Your task to perform on an android device: uninstall "File Manager" Image 0: 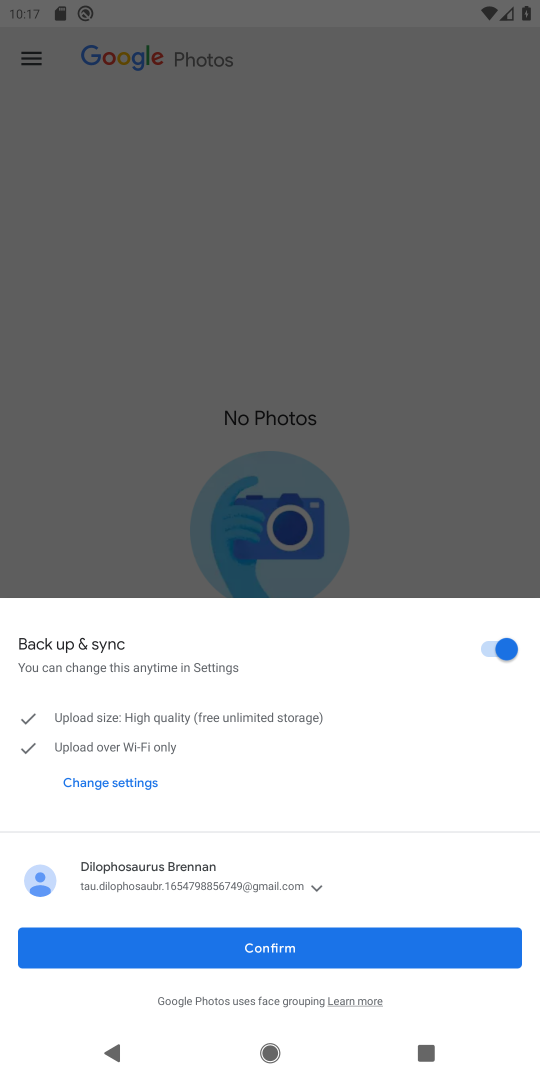
Step 0: press home button
Your task to perform on an android device: uninstall "File Manager" Image 1: 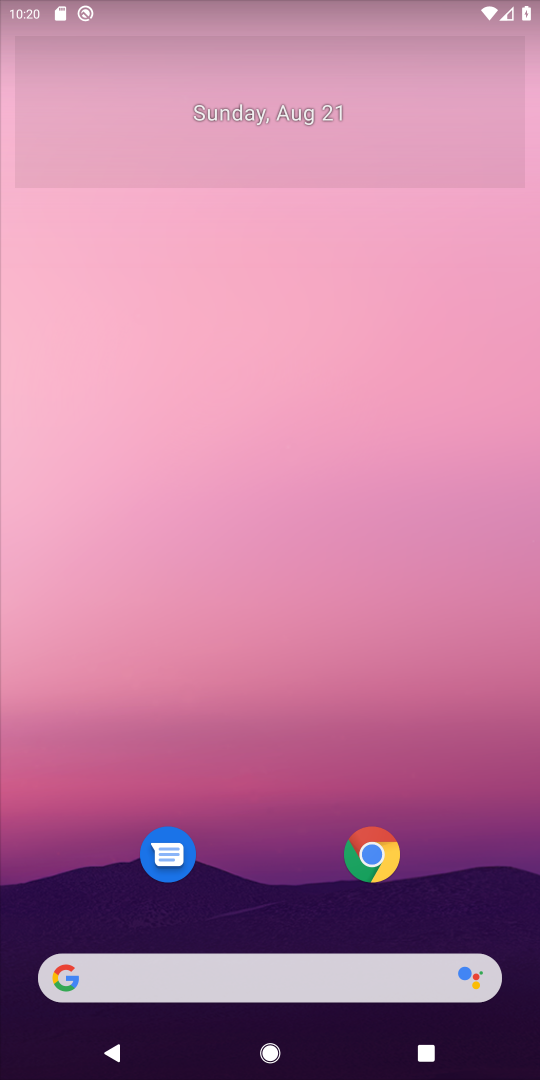
Step 1: click (195, 955)
Your task to perform on an android device: uninstall "File Manager" Image 2: 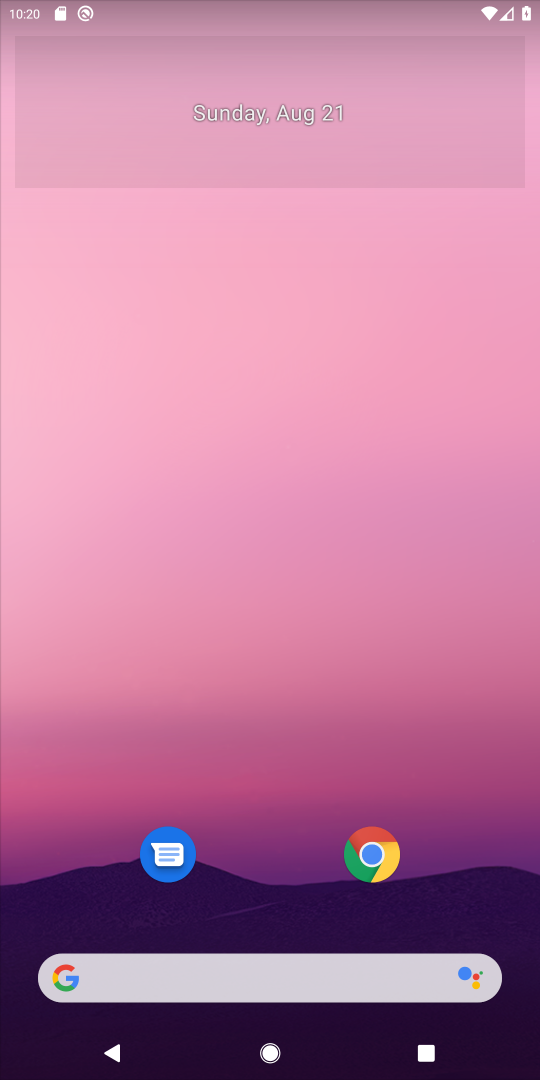
Step 2: task complete